Your task to perform on an android device: Show me popular games on the Play Store Image 0: 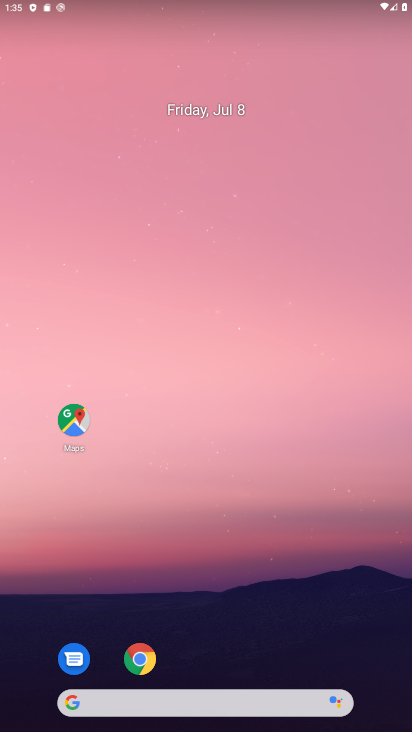
Step 0: drag from (327, 537) to (235, 59)
Your task to perform on an android device: Show me popular games on the Play Store Image 1: 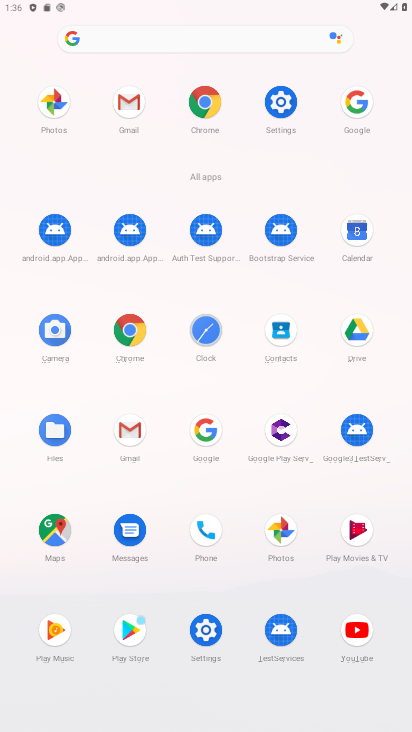
Step 1: click (123, 641)
Your task to perform on an android device: Show me popular games on the Play Store Image 2: 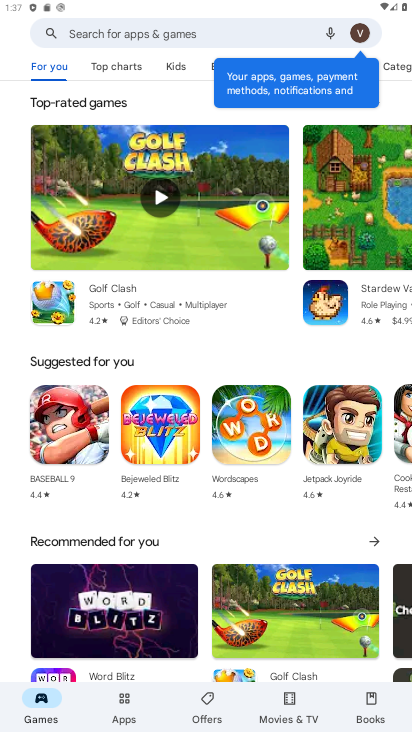
Step 2: click (110, 67)
Your task to perform on an android device: Show me popular games on the Play Store Image 3: 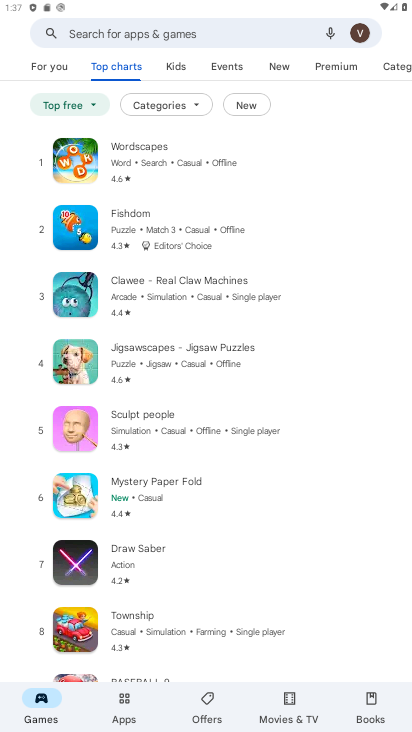
Step 3: task complete